Your task to perform on an android device: empty trash in the gmail app Image 0: 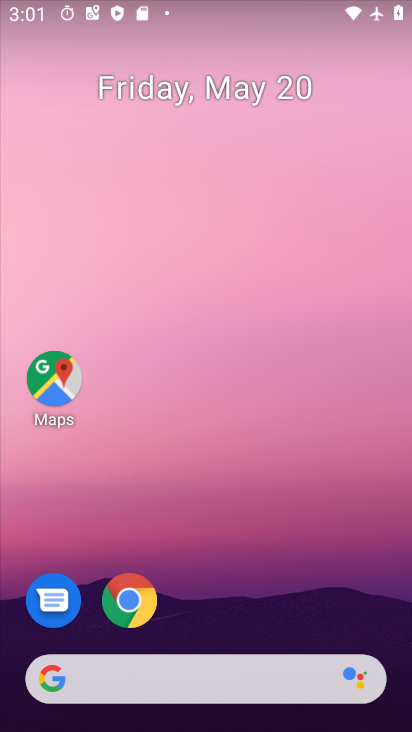
Step 0: drag from (234, 360) to (233, 84)
Your task to perform on an android device: empty trash in the gmail app Image 1: 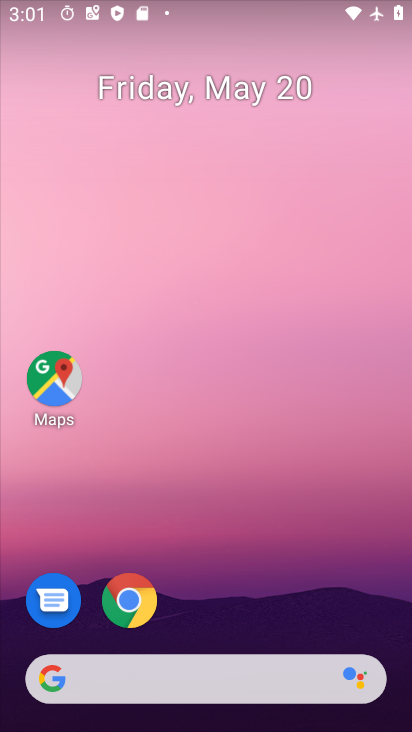
Step 1: drag from (347, 536) to (250, 8)
Your task to perform on an android device: empty trash in the gmail app Image 2: 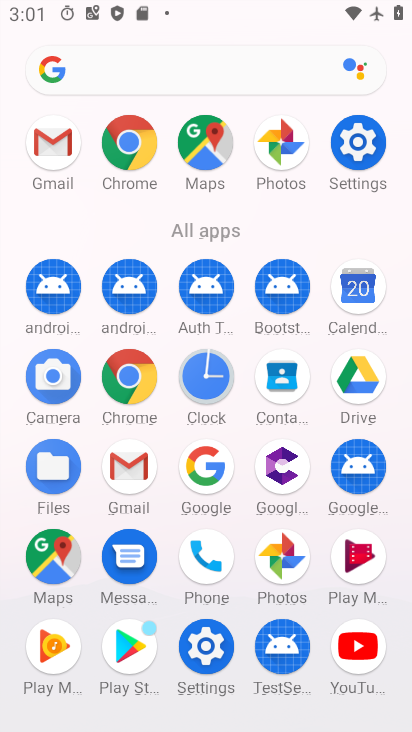
Step 2: drag from (7, 562) to (15, 247)
Your task to perform on an android device: empty trash in the gmail app Image 3: 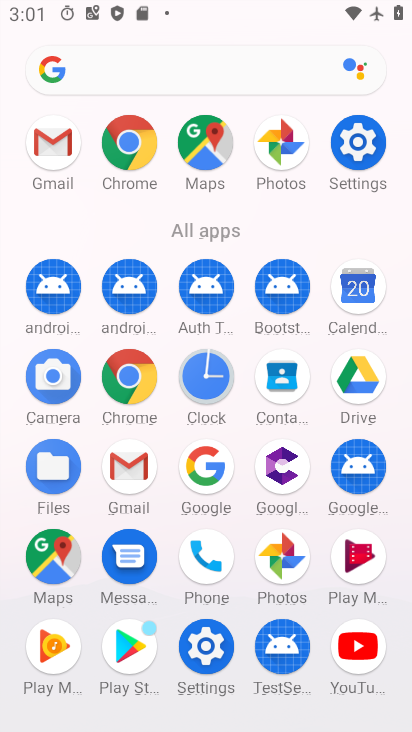
Step 3: drag from (14, 564) to (7, 329)
Your task to perform on an android device: empty trash in the gmail app Image 4: 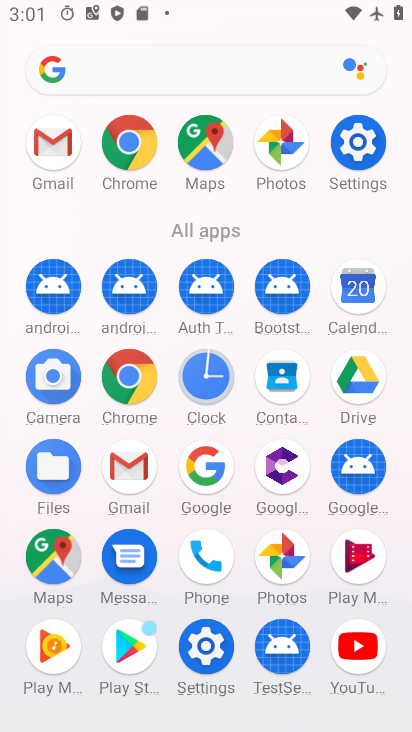
Step 4: click (123, 462)
Your task to perform on an android device: empty trash in the gmail app Image 5: 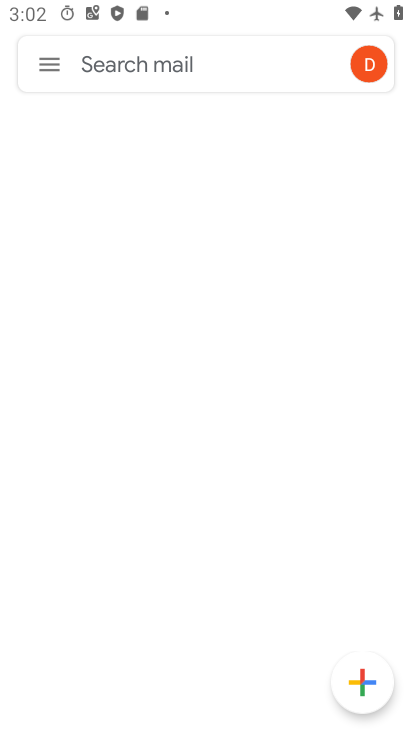
Step 5: click (50, 61)
Your task to perform on an android device: empty trash in the gmail app Image 6: 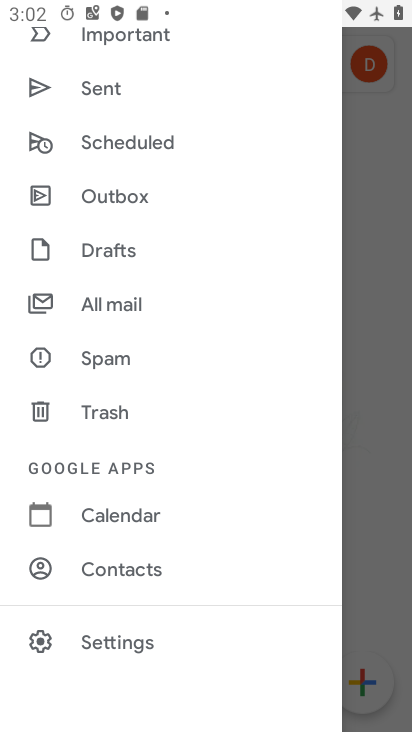
Step 6: drag from (156, 516) to (192, 148)
Your task to perform on an android device: empty trash in the gmail app Image 7: 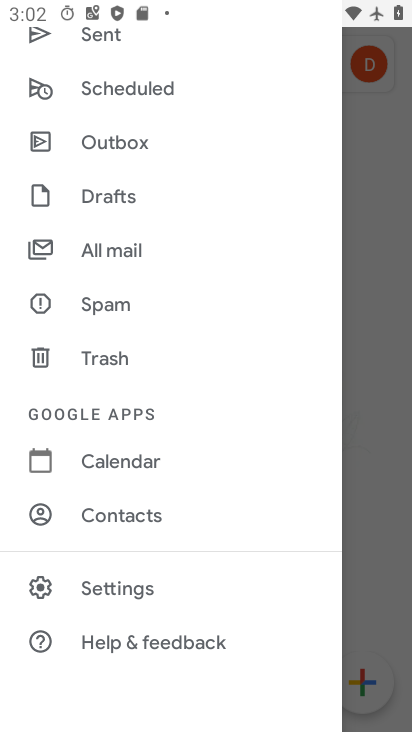
Step 7: click (98, 346)
Your task to perform on an android device: empty trash in the gmail app Image 8: 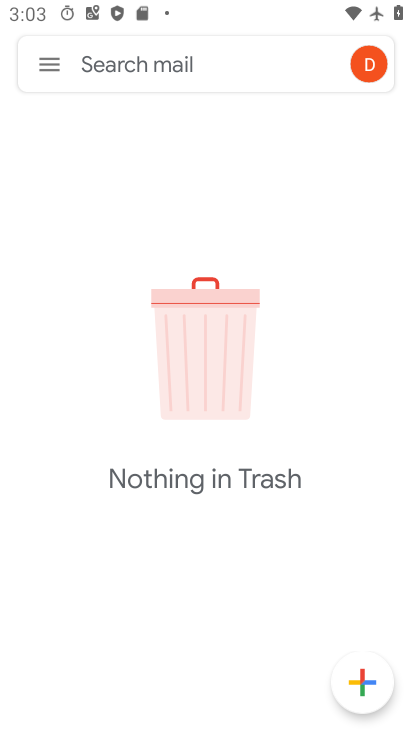
Step 8: task complete